Your task to perform on an android device: empty trash in google photos Image 0: 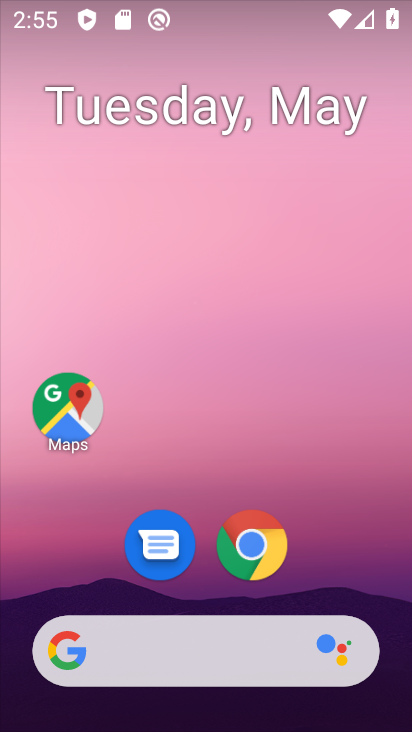
Step 0: drag from (150, 567) to (146, 262)
Your task to perform on an android device: empty trash in google photos Image 1: 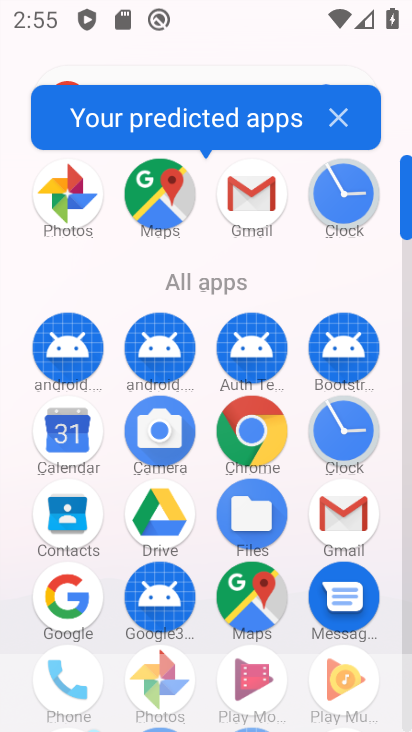
Step 1: click (49, 200)
Your task to perform on an android device: empty trash in google photos Image 2: 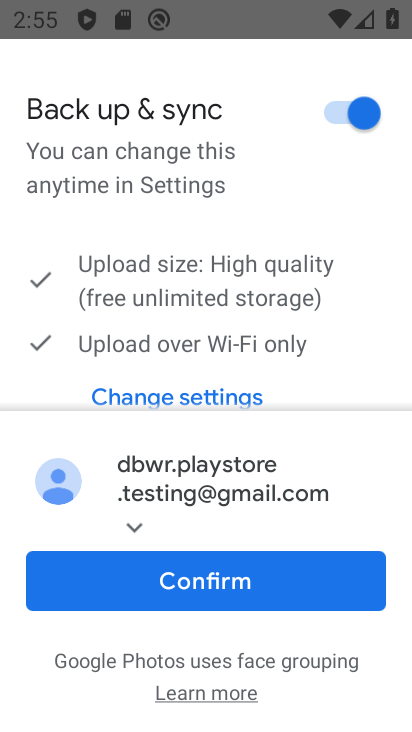
Step 2: click (198, 581)
Your task to perform on an android device: empty trash in google photos Image 3: 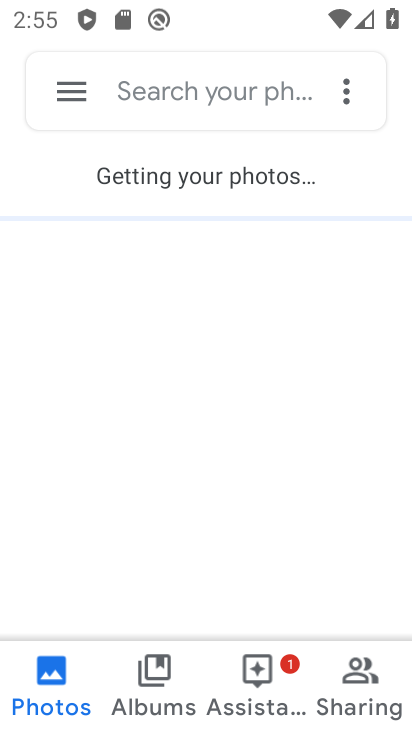
Step 3: click (64, 98)
Your task to perform on an android device: empty trash in google photos Image 4: 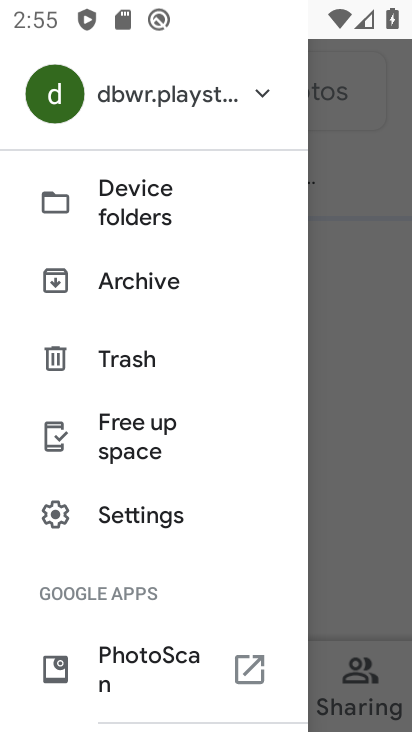
Step 4: click (118, 363)
Your task to perform on an android device: empty trash in google photos Image 5: 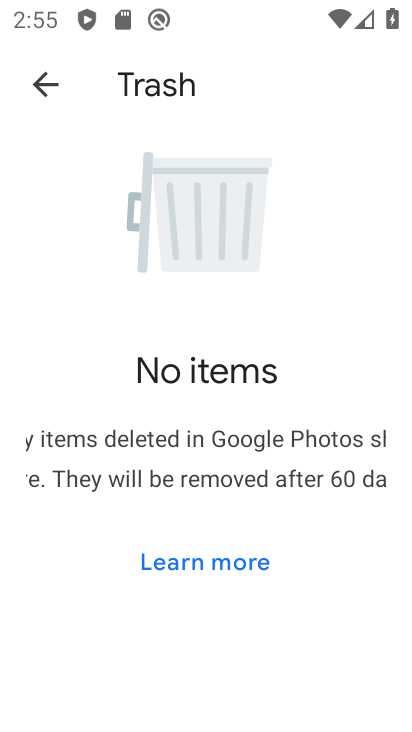
Step 5: task complete